Your task to perform on an android device: remove spam from my inbox in the gmail app Image 0: 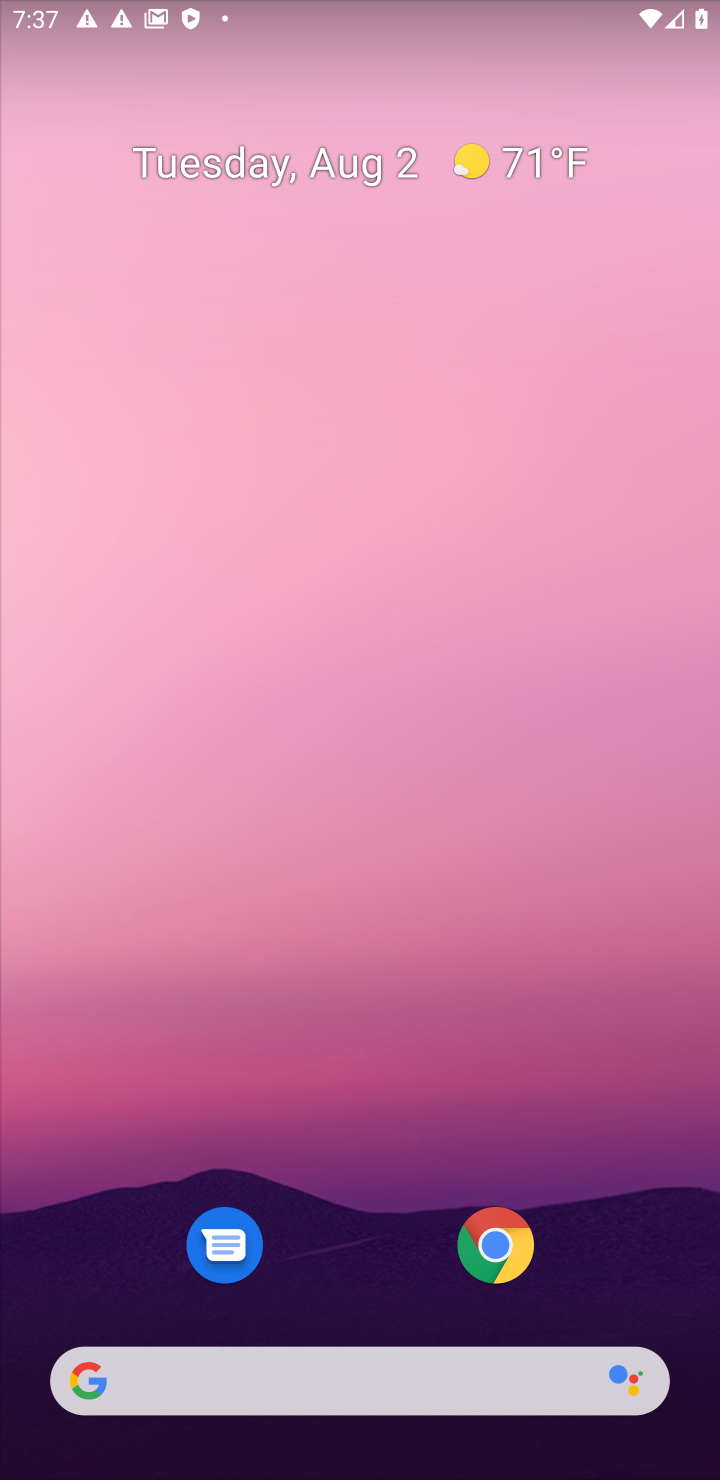
Step 0: drag from (313, 1223) to (328, 155)
Your task to perform on an android device: remove spam from my inbox in the gmail app Image 1: 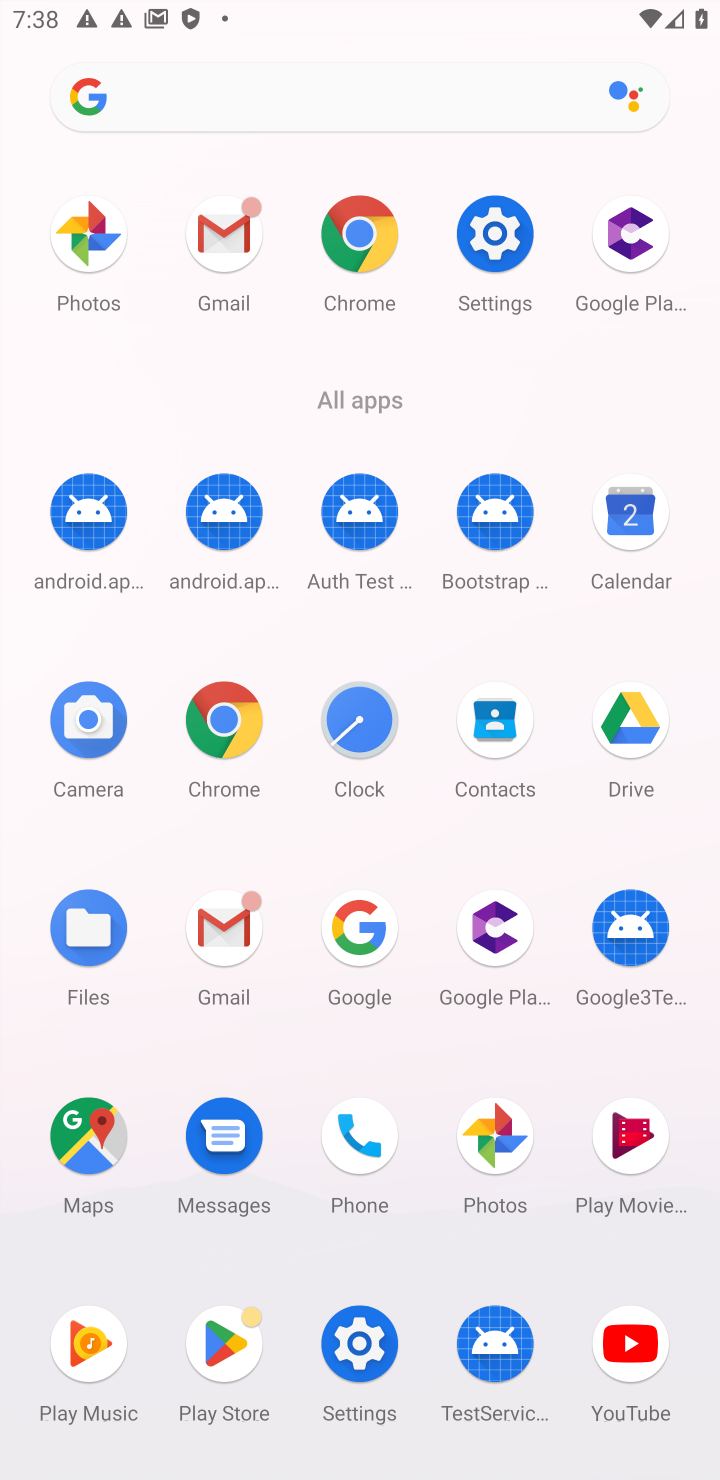
Step 1: click (201, 256)
Your task to perform on an android device: remove spam from my inbox in the gmail app Image 2: 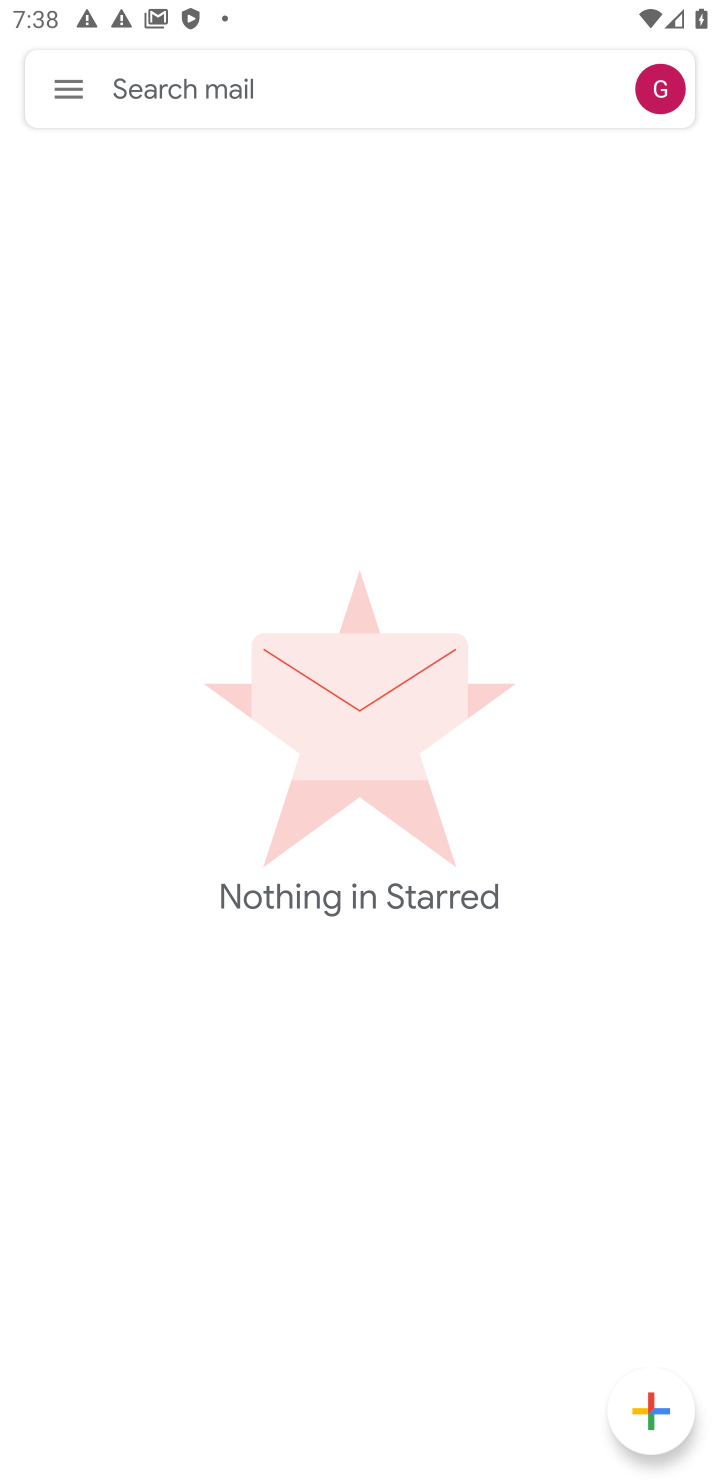
Step 2: click (57, 94)
Your task to perform on an android device: remove spam from my inbox in the gmail app Image 3: 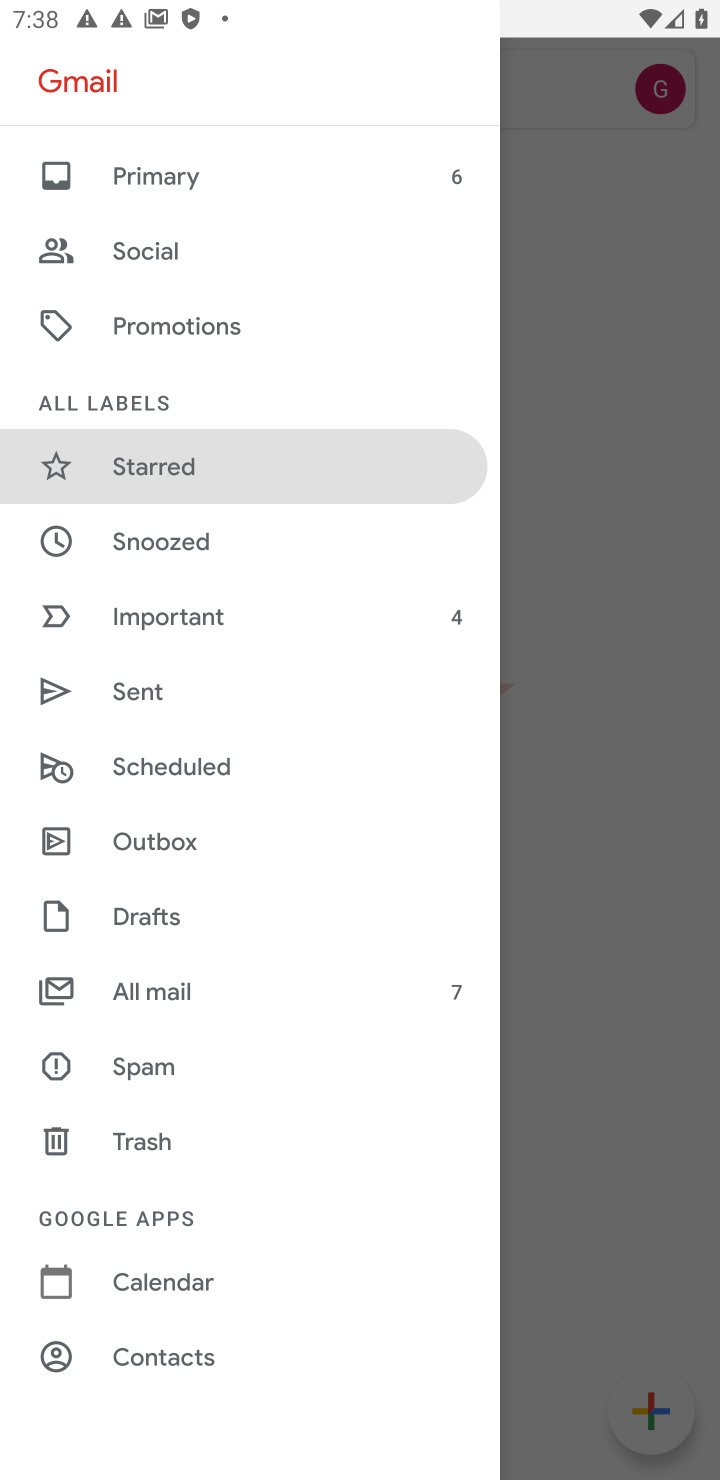
Step 3: click (147, 1074)
Your task to perform on an android device: remove spam from my inbox in the gmail app Image 4: 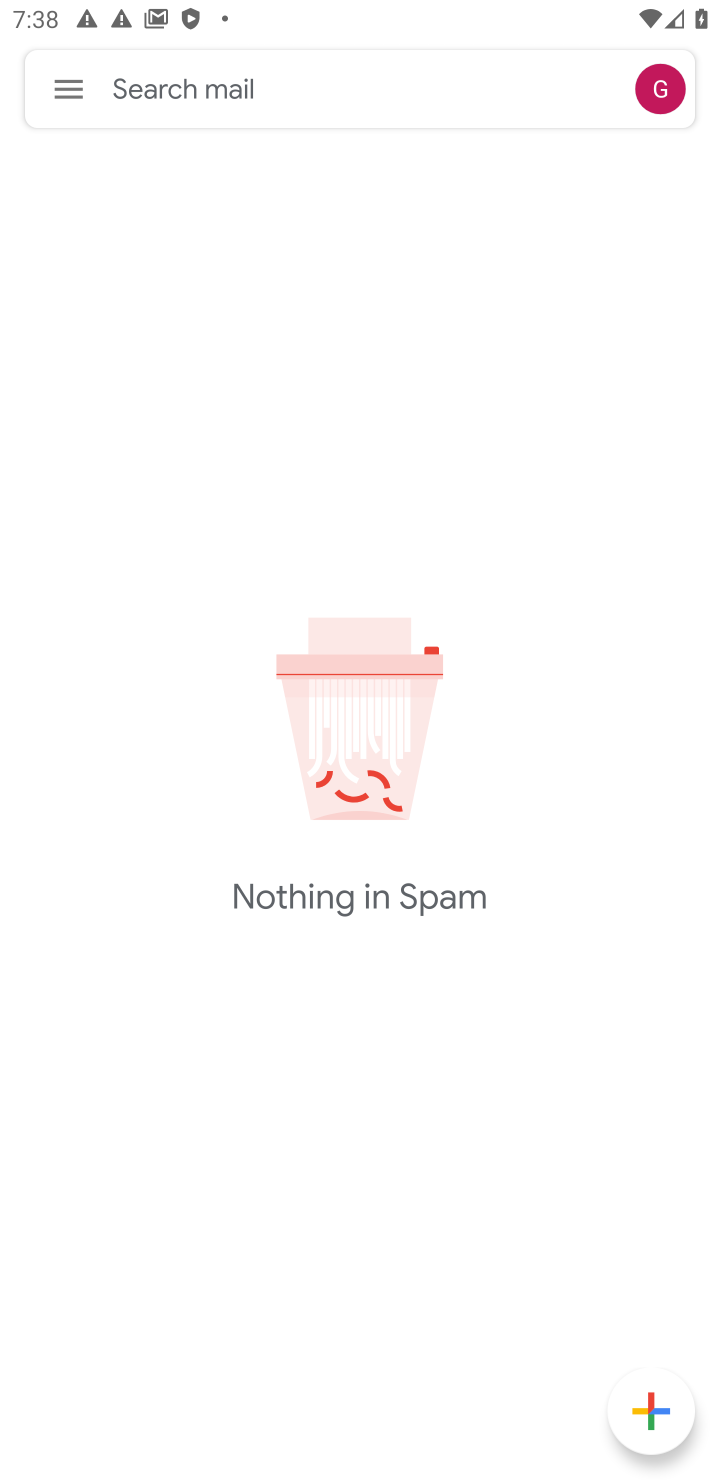
Step 4: task complete